Your task to perform on an android device: all mails in gmail Image 0: 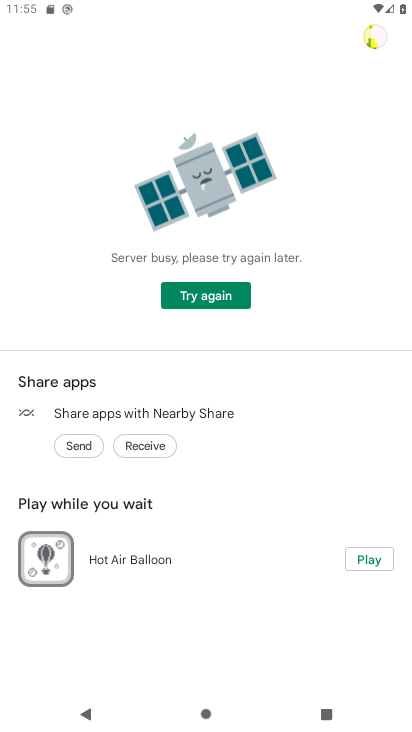
Step 0: press home button
Your task to perform on an android device: all mails in gmail Image 1: 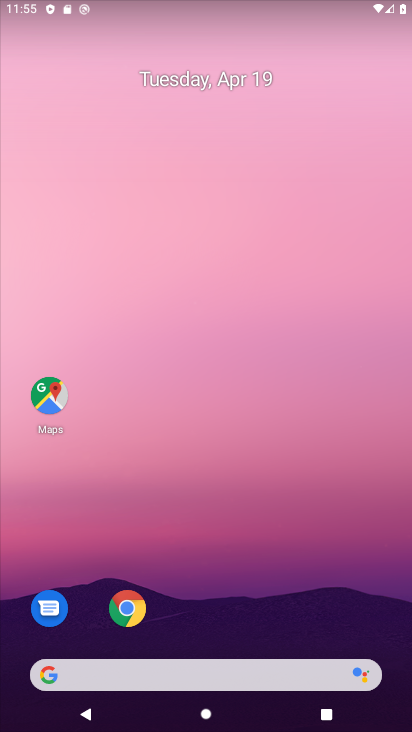
Step 1: drag from (185, 557) to (223, 77)
Your task to perform on an android device: all mails in gmail Image 2: 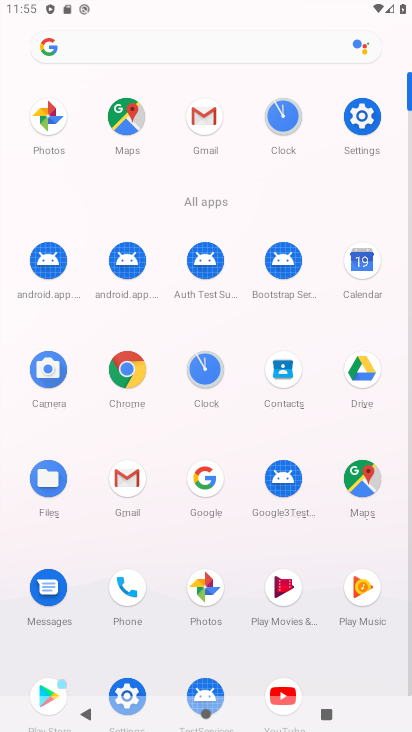
Step 2: click (202, 112)
Your task to perform on an android device: all mails in gmail Image 3: 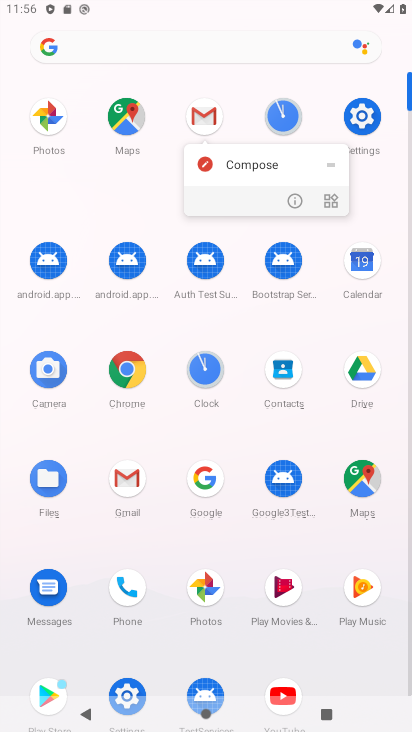
Step 3: click (204, 113)
Your task to perform on an android device: all mails in gmail Image 4: 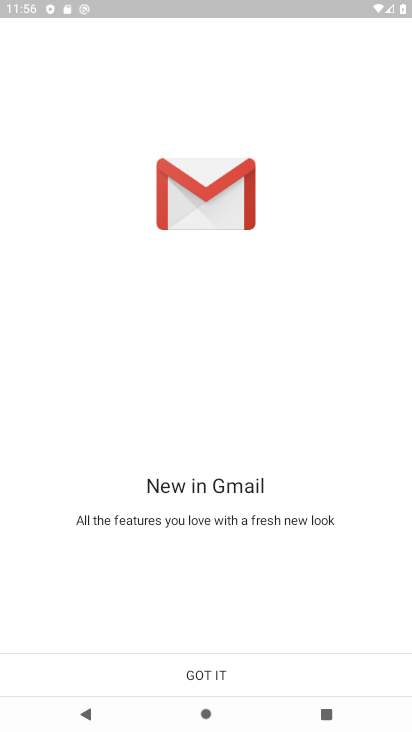
Step 4: click (200, 681)
Your task to perform on an android device: all mails in gmail Image 5: 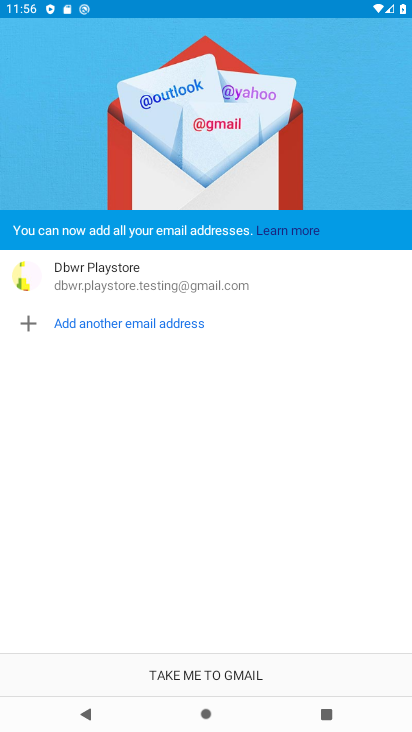
Step 5: click (209, 667)
Your task to perform on an android device: all mails in gmail Image 6: 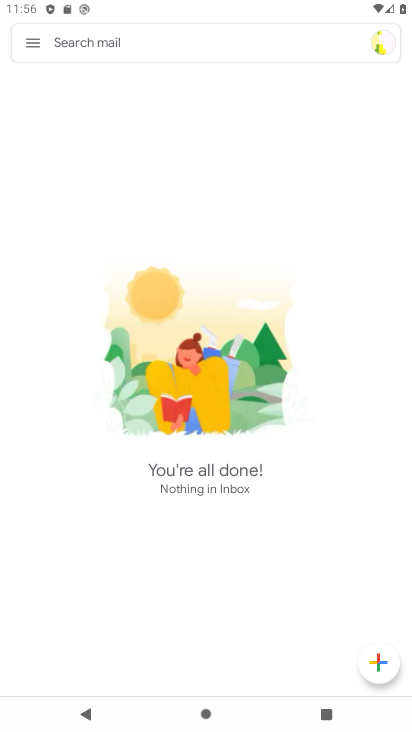
Step 6: click (32, 40)
Your task to perform on an android device: all mails in gmail Image 7: 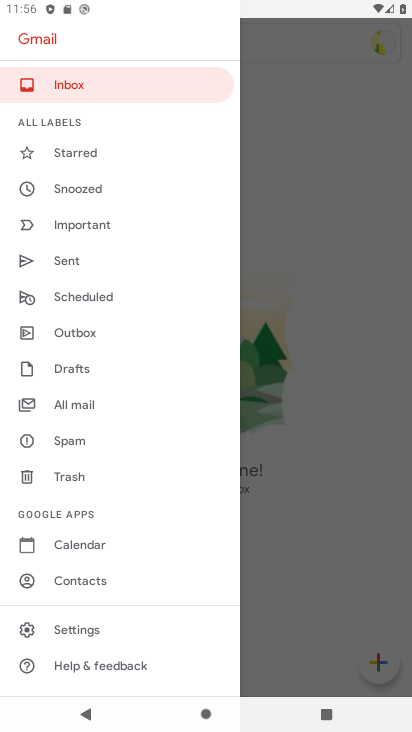
Step 7: click (75, 403)
Your task to perform on an android device: all mails in gmail Image 8: 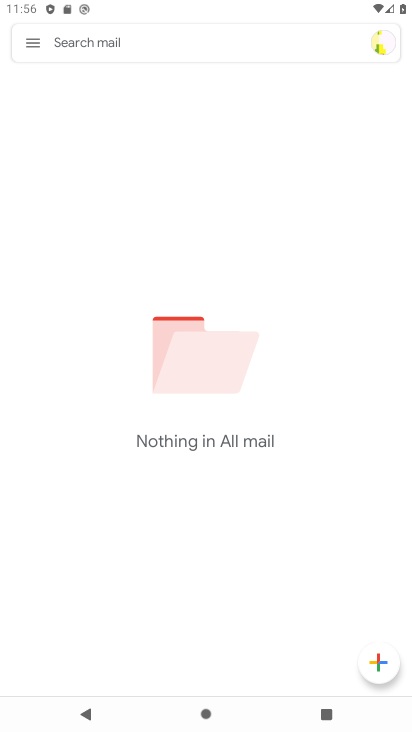
Step 8: task complete